Your task to perform on an android device: Go to Wikipedia Image 0: 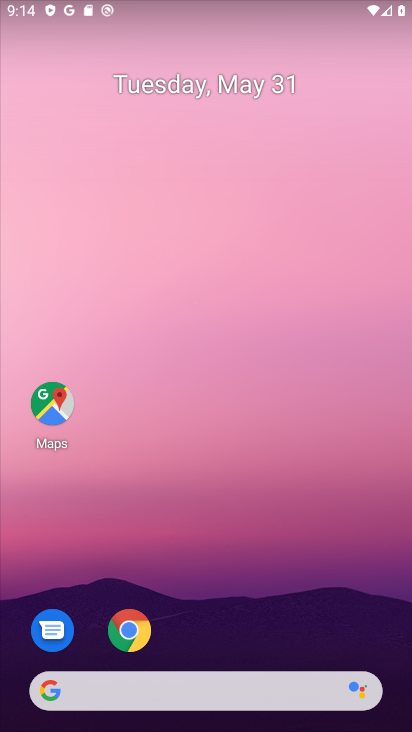
Step 0: click (130, 642)
Your task to perform on an android device: Go to Wikipedia Image 1: 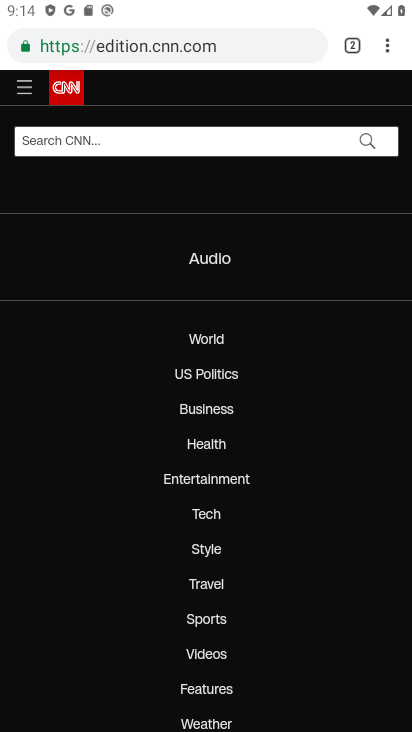
Step 1: click (345, 39)
Your task to perform on an android device: Go to Wikipedia Image 2: 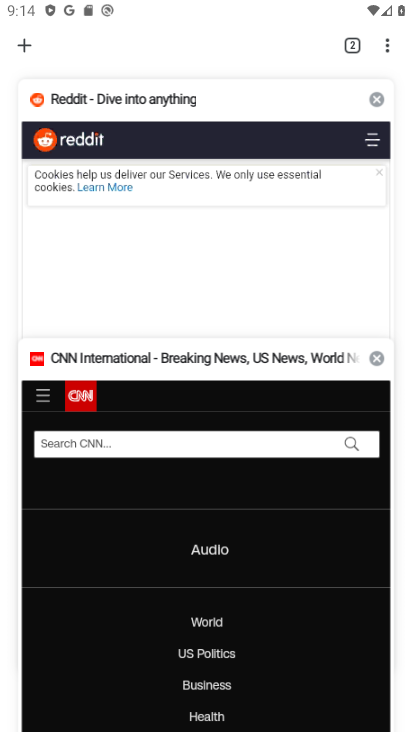
Step 2: click (384, 366)
Your task to perform on an android device: Go to Wikipedia Image 3: 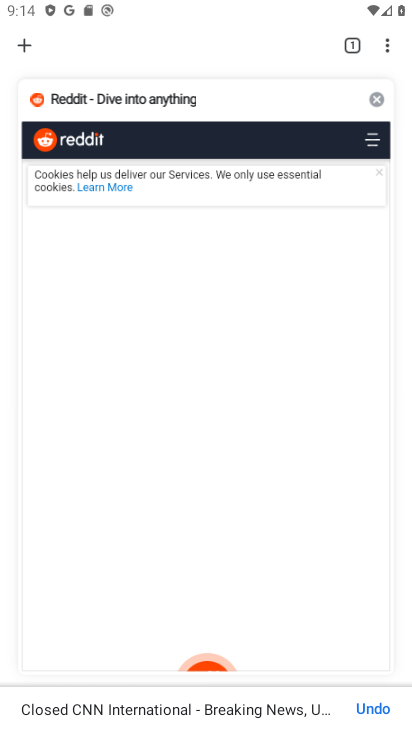
Step 3: click (377, 103)
Your task to perform on an android device: Go to Wikipedia Image 4: 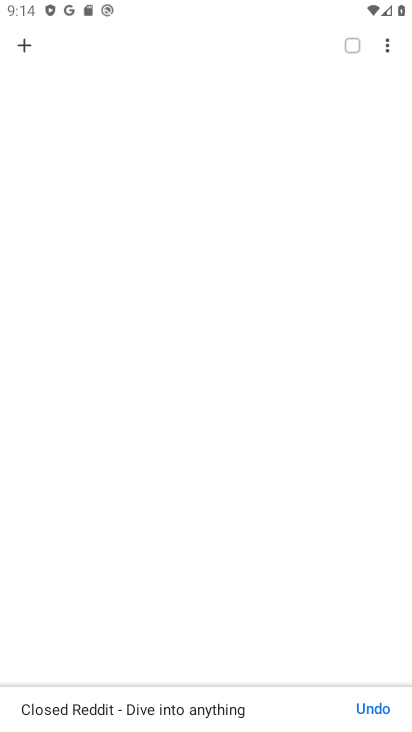
Step 4: click (13, 45)
Your task to perform on an android device: Go to Wikipedia Image 5: 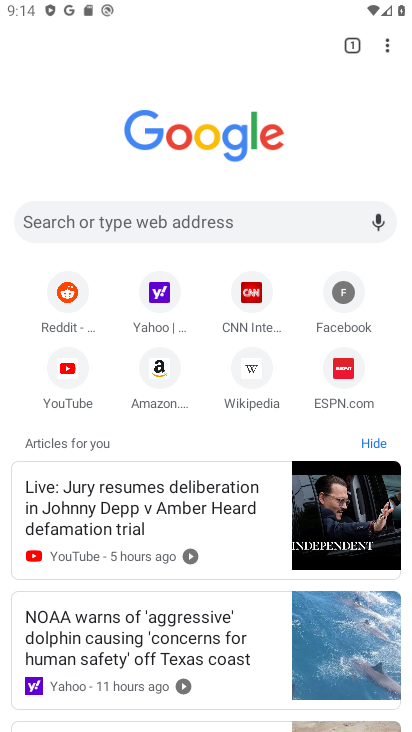
Step 5: click (252, 372)
Your task to perform on an android device: Go to Wikipedia Image 6: 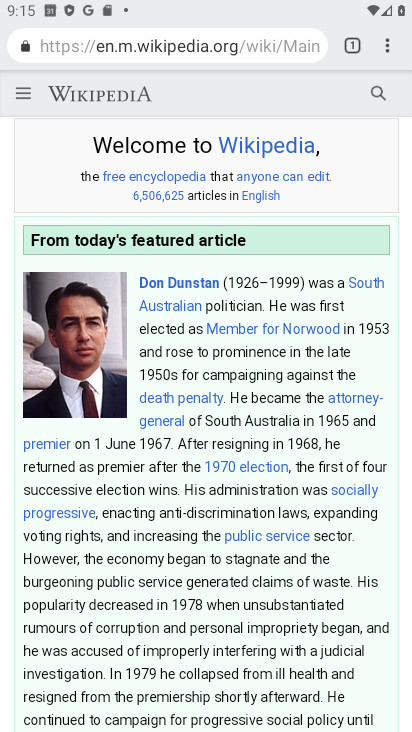
Step 6: task complete